Your task to perform on an android device: star an email in the gmail app Image 0: 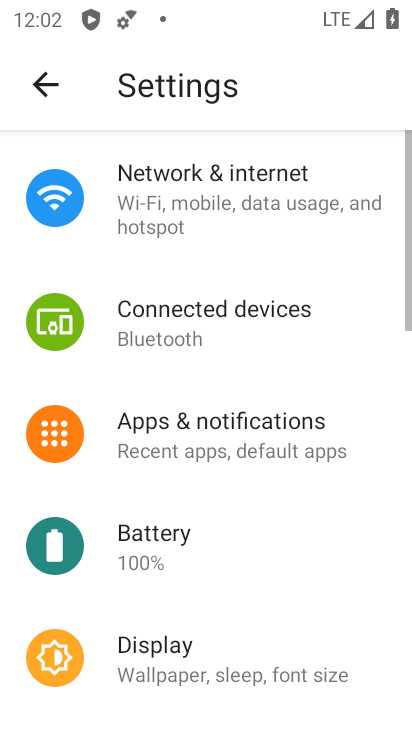
Step 0: press home button
Your task to perform on an android device: star an email in the gmail app Image 1: 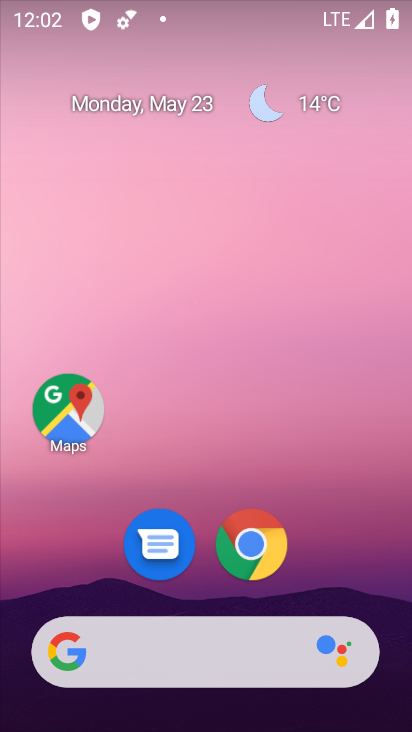
Step 1: drag from (320, 530) to (309, 80)
Your task to perform on an android device: star an email in the gmail app Image 2: 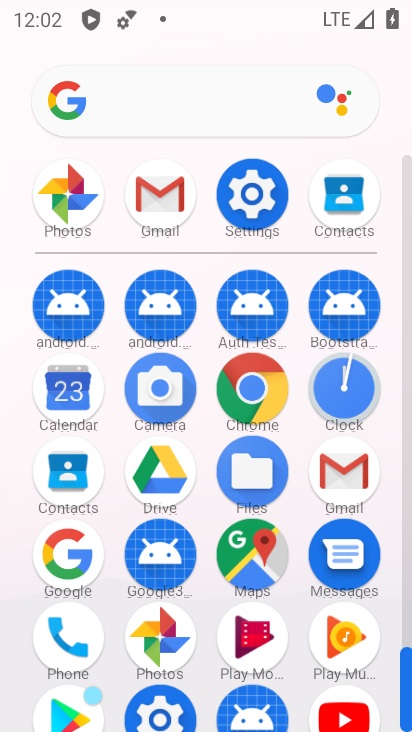
Step 2: click (154, 199)
Your task to perform on an android device: star an email in the gmail app Image 3: 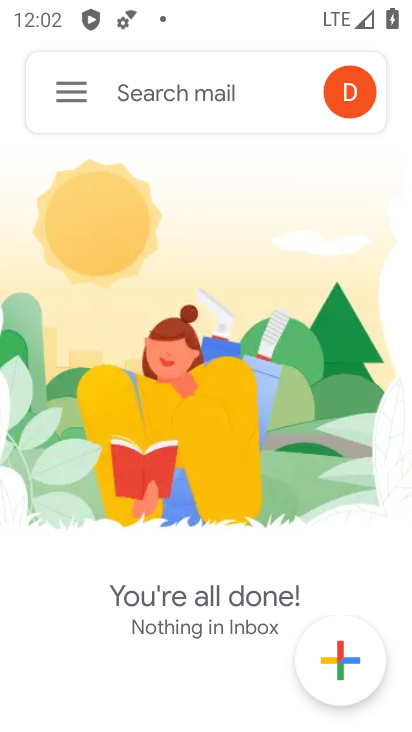
Step 3: click (75, 94)
Your task to perform on an android device: star an email in the gmail app Image 4: 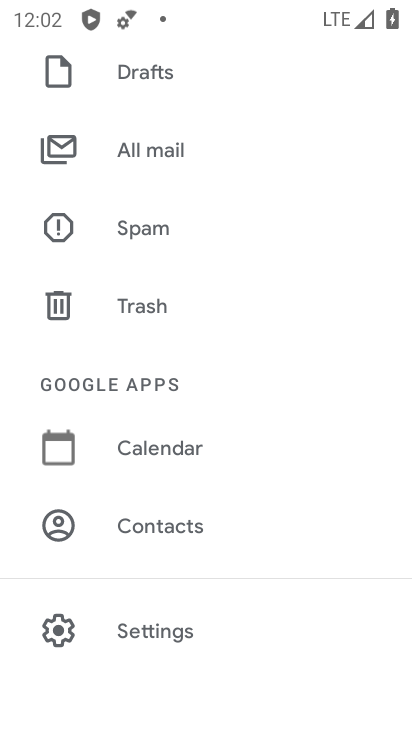
Step 4: click (168, 157)
Your task to perform on an android device: star an email in the gmail app Image 5: 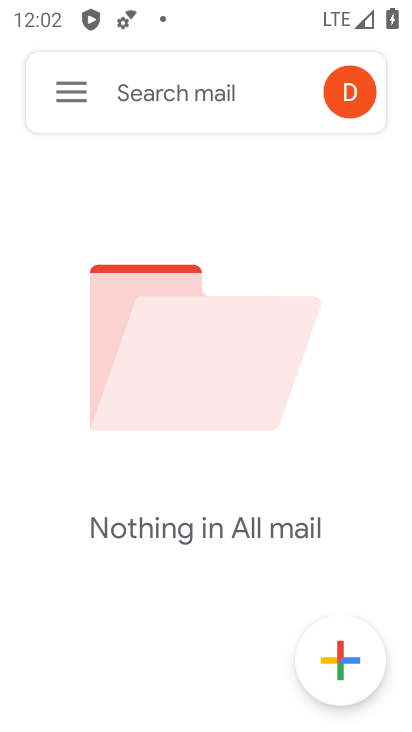
Step 5: task complete